Your task to perform on an android device: clear history in the chrome app Image 0: 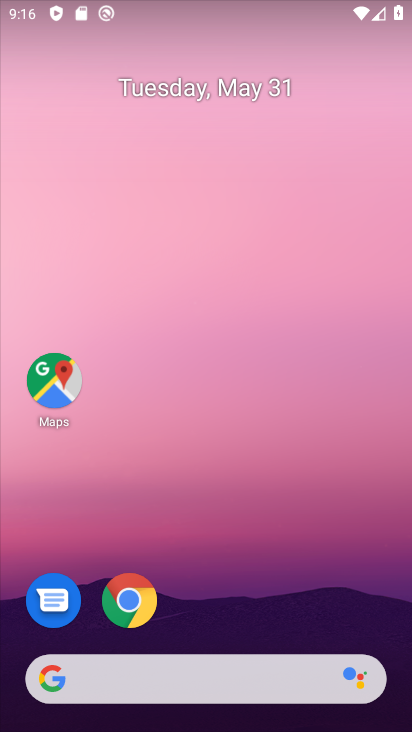
Step 0: click (112, 609)
Your task to perform on an android device: clear history in the chrome app Image 1: 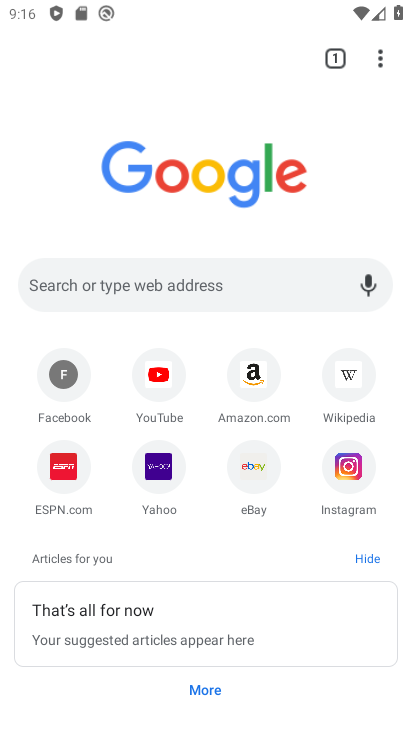
Step 1: click (377, 59)
Your task to perform on an android device: clear history in the chrome app Image 2: 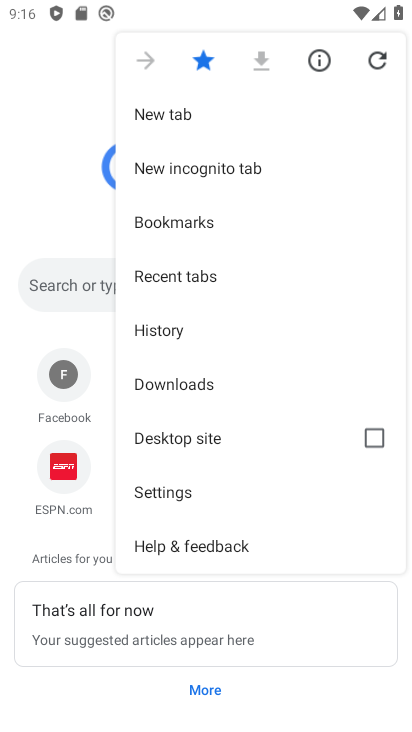
Step 2: click (184, 333)
Your task to perform on an android device: clear history in the chrome app Image 3: 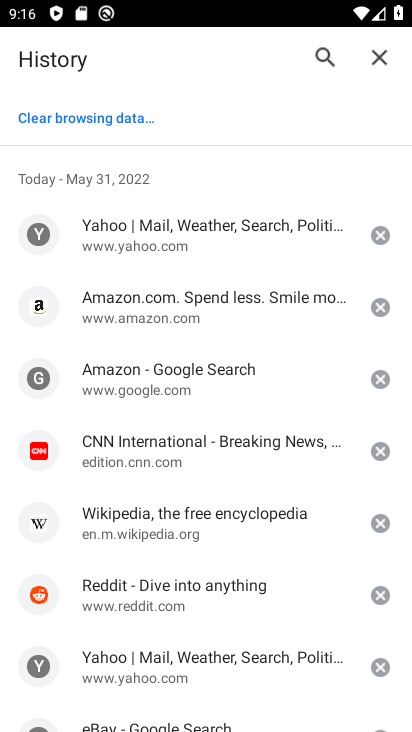
Step 3: click (109, 112)
Your task to perform on an android device: clear history in the chrome app Image 4: 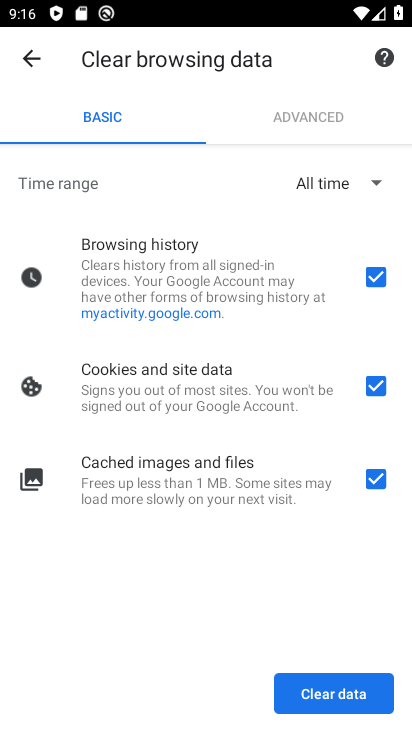
Step 4: click (320, 699)
Your task to perform on an android device: clear history in the chrome app Image 5: 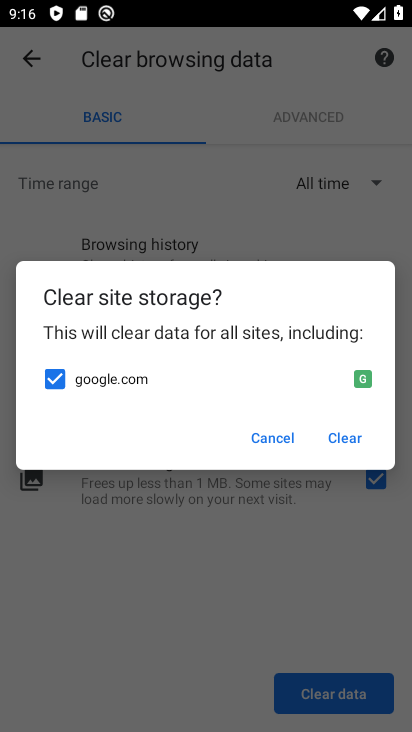
Step 5: click (340, 442)
Your task to perform on an android device: clear history in the chrome app Image 6: 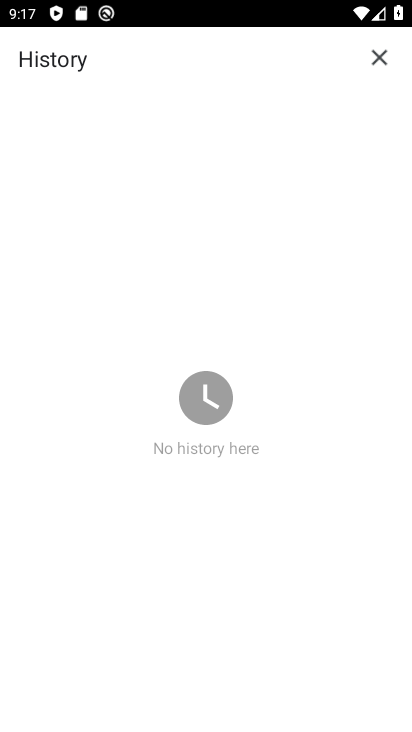
Step 6: task complete